Your task to perform on an android device: Go to accessibility settings Image 0: 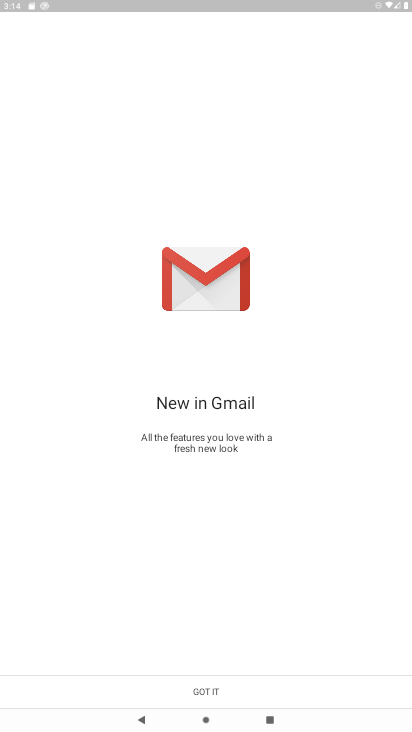
Step 0: drag from (209, 654) to (238, 280)
Your task to perform on an android device: Go to accessibility settings Image 1: 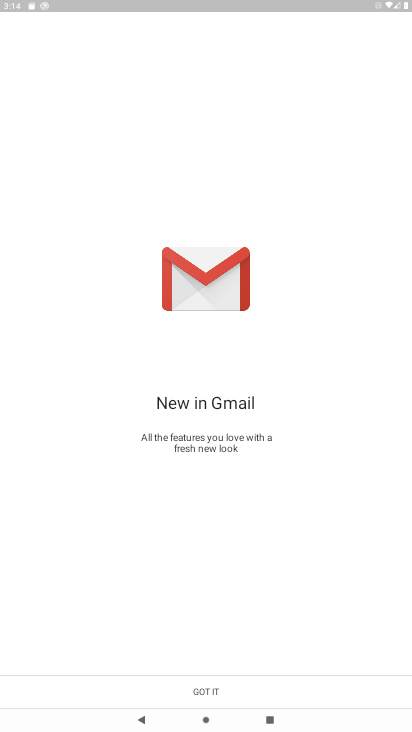
Step 1: press home button
Your task to perform on an android device: Go to accessibility settings Image 2: 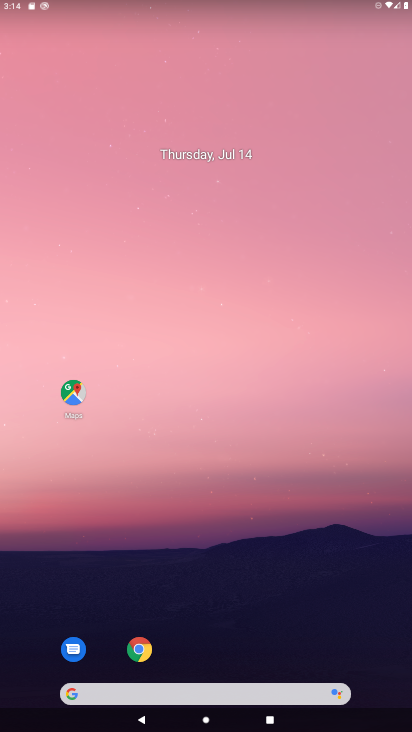
Step 2: drag from (237, 634) to (237, 341)
Your task to perform on an android device: Go to accessibility settings Image 3: 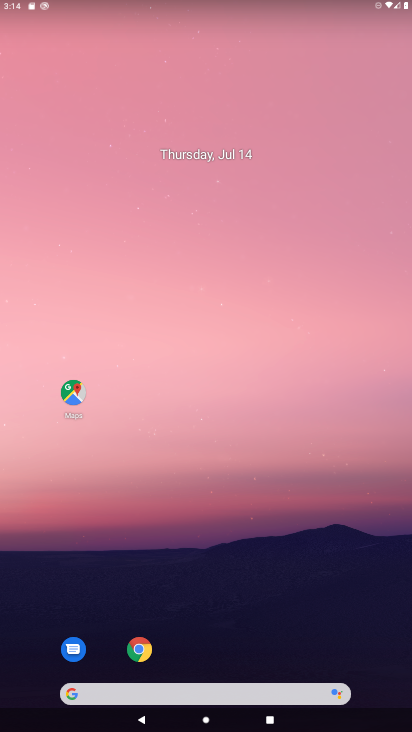
Step 3: drag from (199, 651) to (210, 312)
Your task to perform on an android device: Go to accessibility settings Image 4: 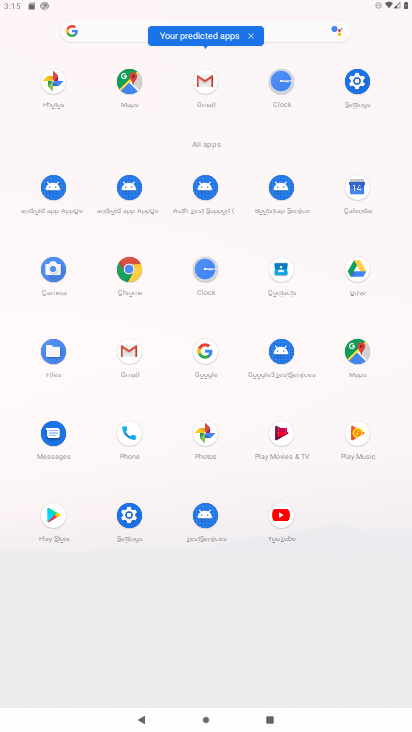
Step 4: click (359, 84)
Your task to perform on an android device: Go to accessibility settings Image 5: 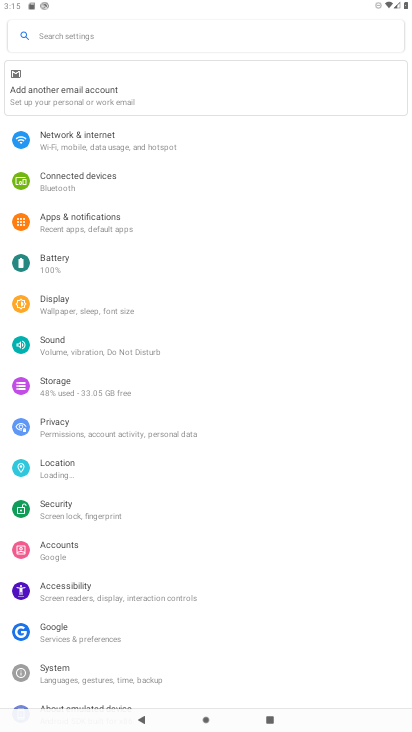
Step 5: click (112, 595)
Your task to perform on an android device: Go to accessibility settings Image 6: 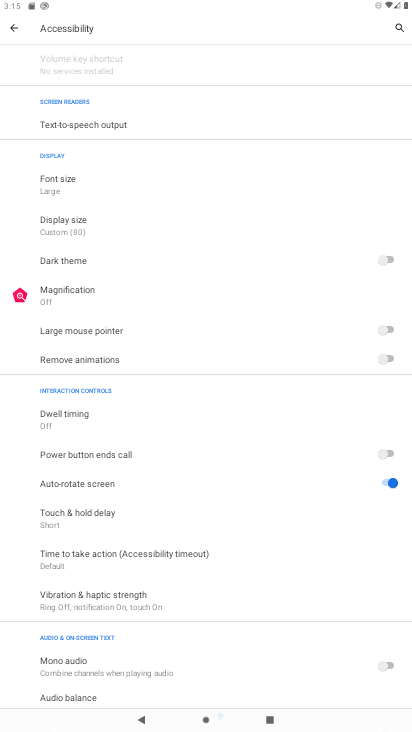
Step 6: task complete